Your task to perform on an android device: Search for Italian restaurants on Maps Image 0: 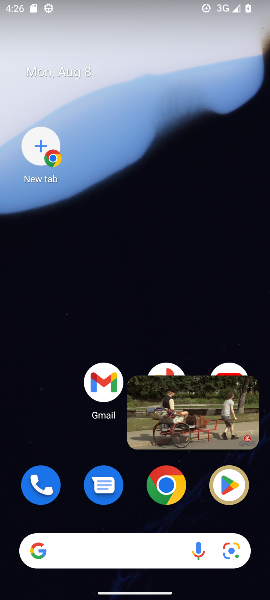
Step 0: drag from (151, 580) to (138, 196)
Your task to perform on an android device: Search for Italian restaurants on Maps Image 1: 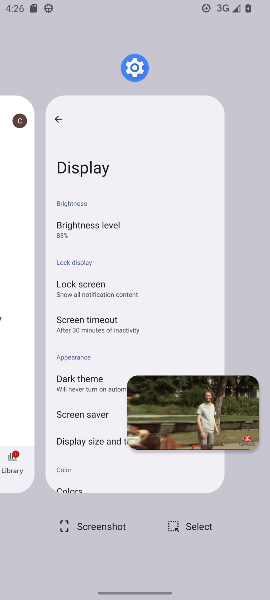
Step 1: click (250, 392)
Your task to perform on an android device: Search for Italian restaurants on Maps Image 2: 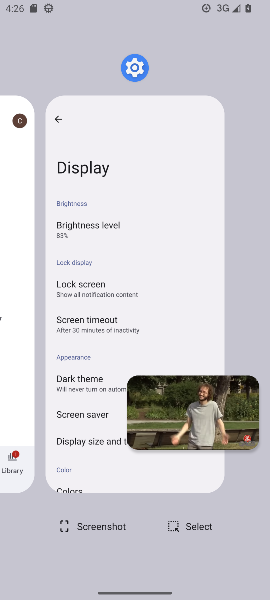
Step 2: click (250, 391)
Your task to perform on an android device: Search for Italian restaurants on Maps Image 3: 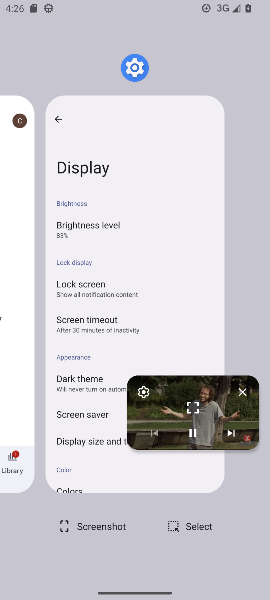
Step 3: click (251, 388)
Your task to perform on an android device: Search for Italian restaurants on Maps Image 4: 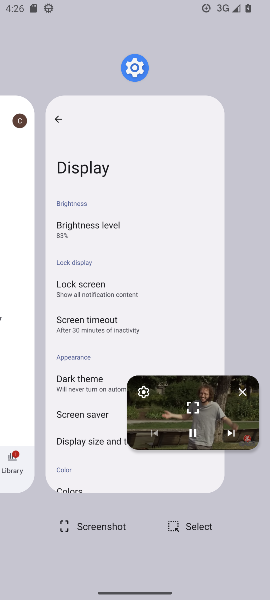
Step 4: click (251, 388)
Your task to perform on an android device: Search for Italian restaurants on Maps Image 5: 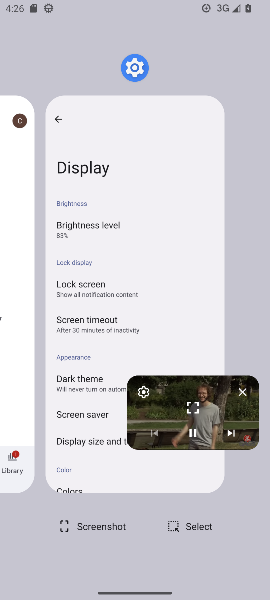
Step 5: click (251, 388)
Your task to perform on an android device: Search for Italian restaurants on Maps Image 6: 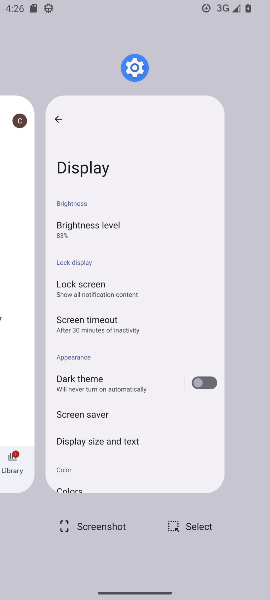
Step 6: click (243, 390)
Your task to perform on an android device: Search for Italian restaurants on Maps Image 7: 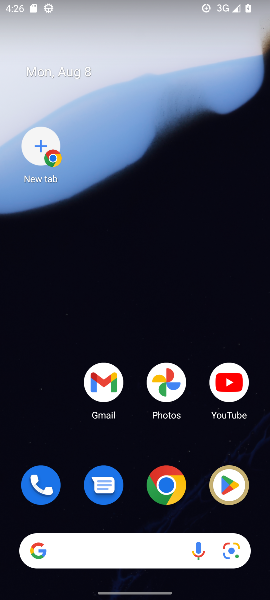
Step 7: click (230, 188)
Your task to perform on an android device: Search for Italian restaurants on Maps Image 8: 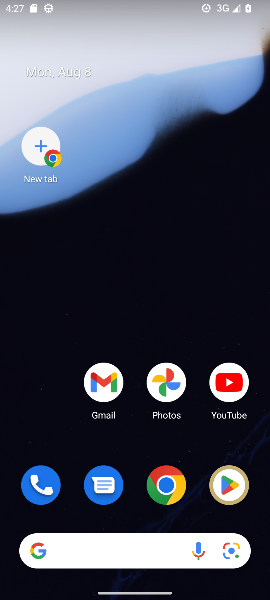
Step 8: drag from (176, 543) to (137, 101)
Your task to perform on an android device: Search for Italian restaurants on Maps Image 9: 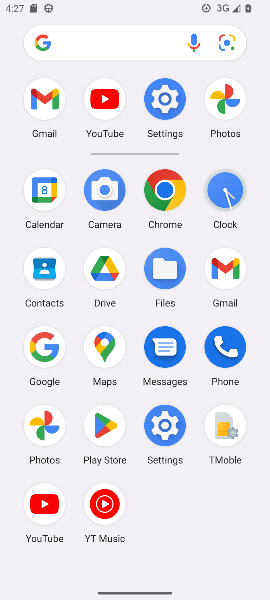
Step 9: click (104, 343)
Your task to perform on an android device: Search for Italian restaurants on Maps Image 10: 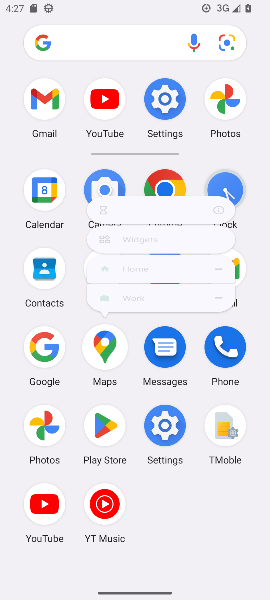
Step 10: click (104, 343)
Your task to perform on an android device: Search for Italian restaurants on Maps Image 11: 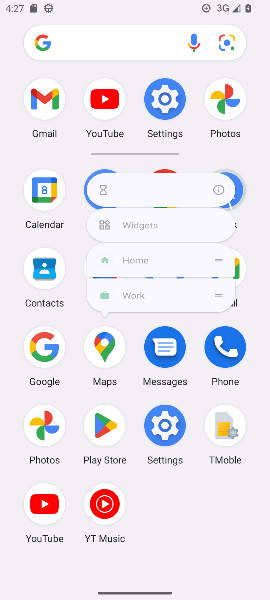
Step 11: click (105, 344)
Your task to perform on an android device: Search for Italian restaurants on Maps Image 12: 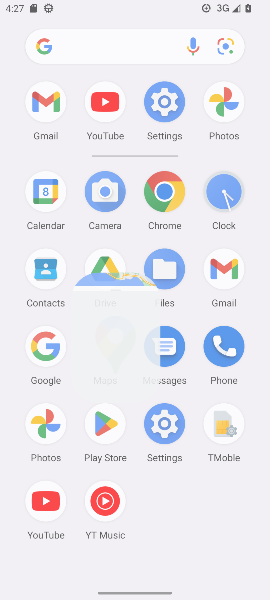
Step 12: click (107, 345)
Your task to perform on an android device: Search for Italian restaurants on Maps Image 13: 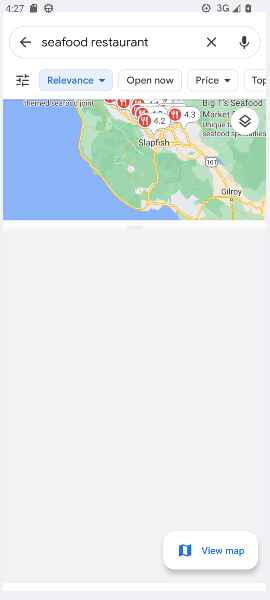
Step 13: click (107, 345)
Your task to perform on an android device: Search for Italian restaurants on Maps Image 14: 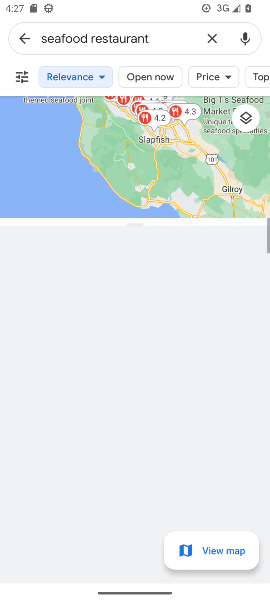
Step 14: click (107, 345)
Your task to perform on an android device: Search for Italian restaurants on Maps Image 15: 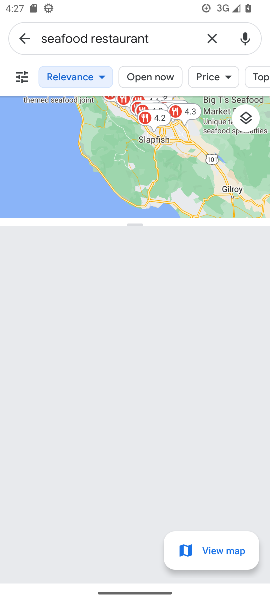
Step 15: click (207, 40)
Your task to perform on an android device: Search for Italian restaurants on Maps Image 16: 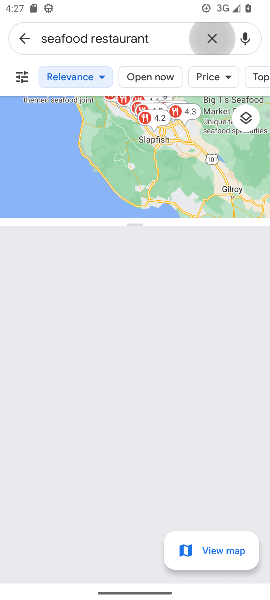
Step 16: click (207, 40)
Your task to perform on an android device: Search for Italian restaurants on Maps Image 17: 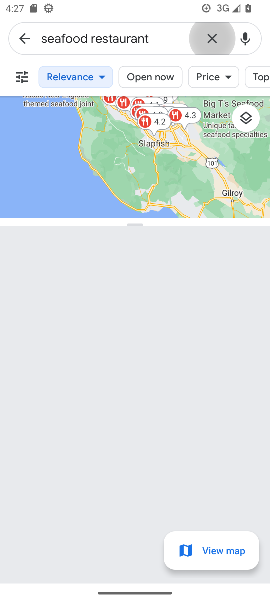
Step 17: click (207, 40)
Your task to perform on an android device: Search for Italian restaurants on Maps Image 18: 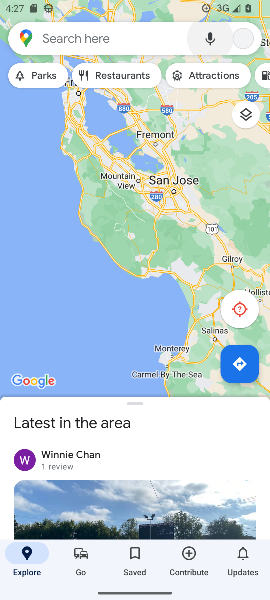
Step 18: click (81, 38)
Your task to perform on an android device: Search for Italian restaurants on Maps Image 19: 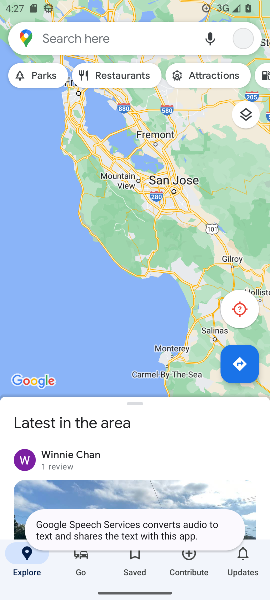
Step 19: click (81, 37)
Your task to perform on an android device: Search for Italian restaurants on Maps Image 20: 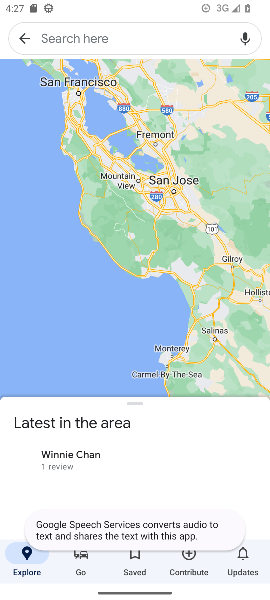
Step 20: click (77, 34)
Your task to perform on an android device: Search for Italian restaurants on Maps Image 21: 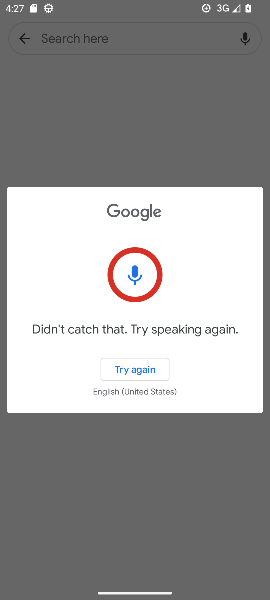
Step 21: type "italian restaurants"
Your task to perform on an android device: Search for Italian restaurants on Maps Image 22: 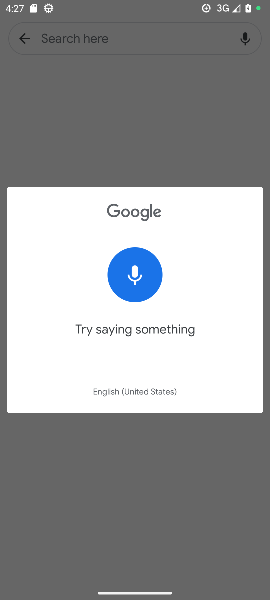
Step 22: click (154, 116)
Your task to perform on an android device: Search for Italian restaurants on Maps Image 23: 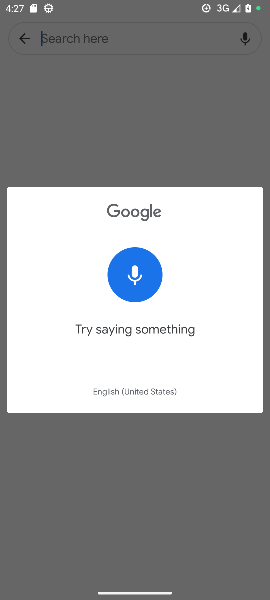
Step 23: click (154, 116)
Your task to perform on an android device: Search for Italian restaurants on Maps Image 24: 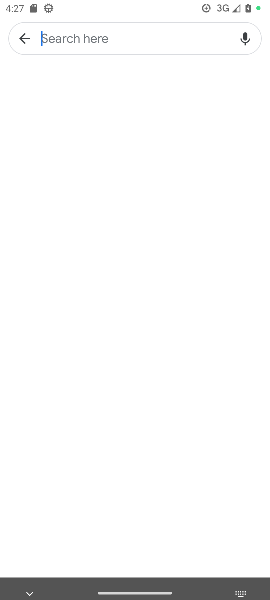
Step 24: click (154, 116)
Your task to perform on an android device: Search for Italian restaurants on Maps Image 25: 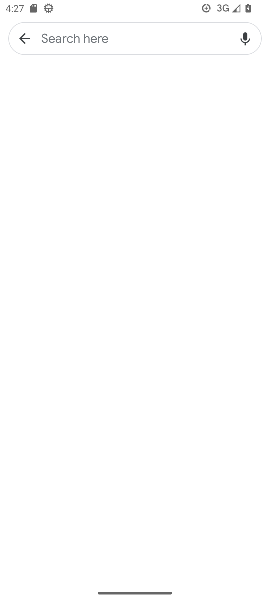
Step 25: click (41, 31)
Your task to perform on an android device: Search for Italian restaurants on Maps Image 26: 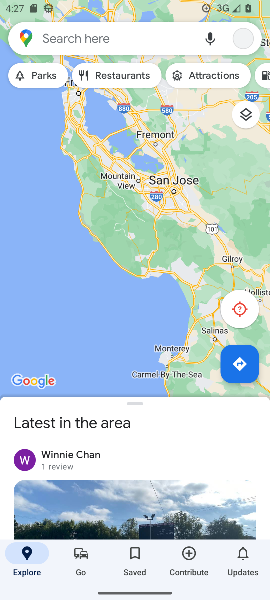
Step 26: click (53, 40)
Your task to perform on an android device: Search for Italian restaurants on Maps Image 27: 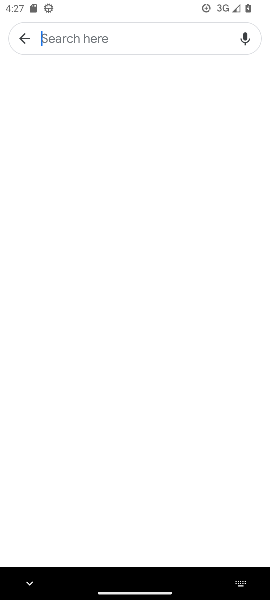
Step 27: type "italian restajurants"
Your task to perform on an android device: Search for Italian restaurants on Maps Image 28: 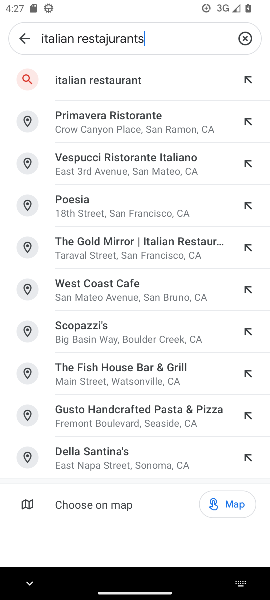
Step 28: click (91, 87)
Your task to perform on an android device: Search for Italian restaurants on Maps Image 29: 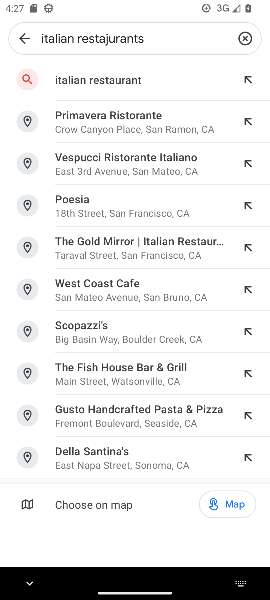
Step 29: click (91, 87)
Your task to perform on an android device: Search for Italian restaurants on Maps Image 30: 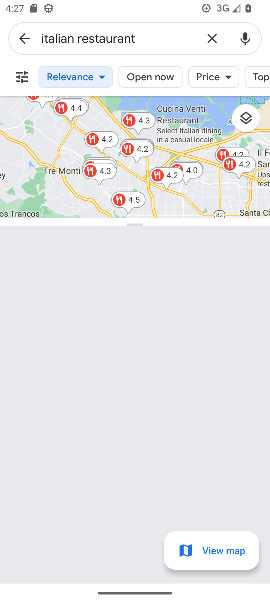
Step 30: task complete